Your task to perform on an android device: turn off notifications settings in the gmail app Image 0: 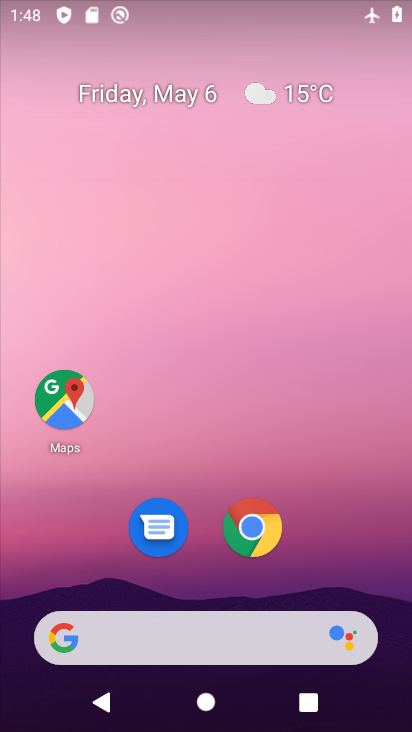
Step 0: drag from (313, 473) to (66, 55)
Your task to perform on an android device: turn off notifications settings in the gmail app Image 1: 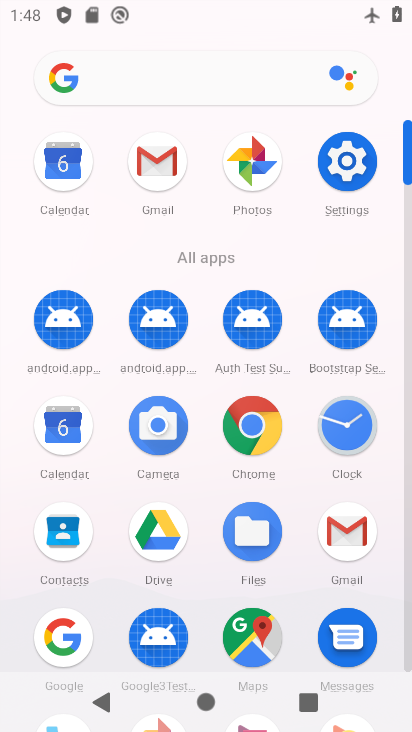
Step 1: click (349, 532)
Your task to perform on an android device: turn off notifications settings in the gmail app Image 2: 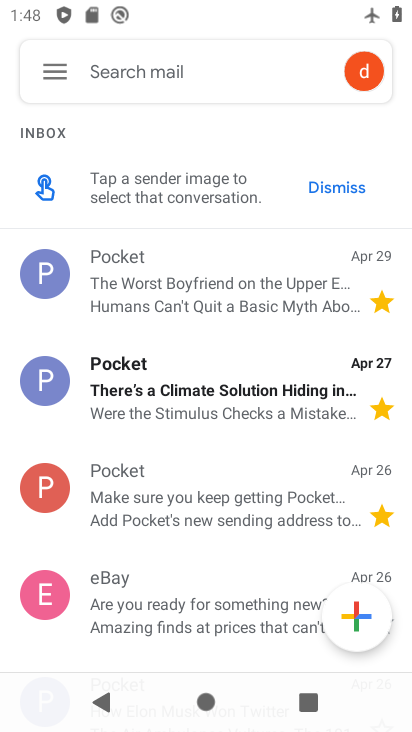
Step 2: click (52, 66)
Your task to perform on an android device: turn off notifications settings in the gmail app Image 3: 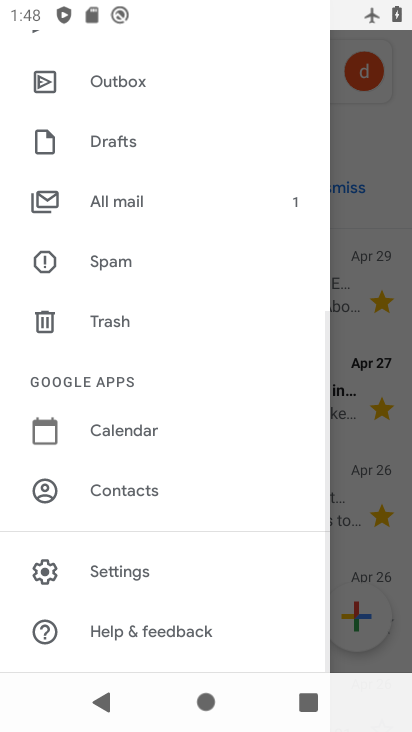
Step 3: click (113, 574)
Your task to perform on an android device: turn off notifications settings in the gmail app Image 4: 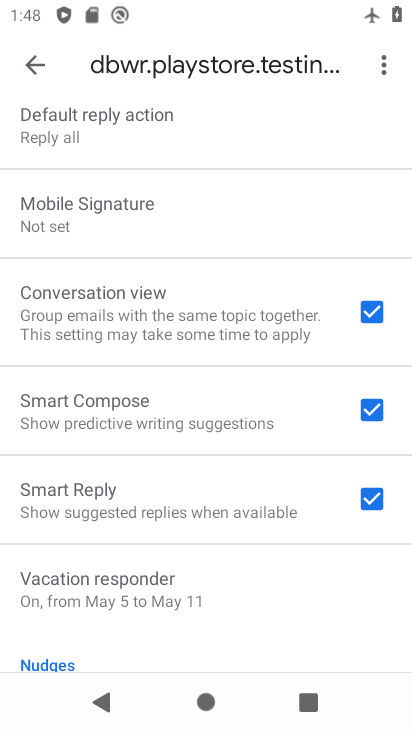
Step 4: drag from (194, 153) to (167, 675)
Your task to perform on an android device: turn off notifications settings in the gmail app Image 5: 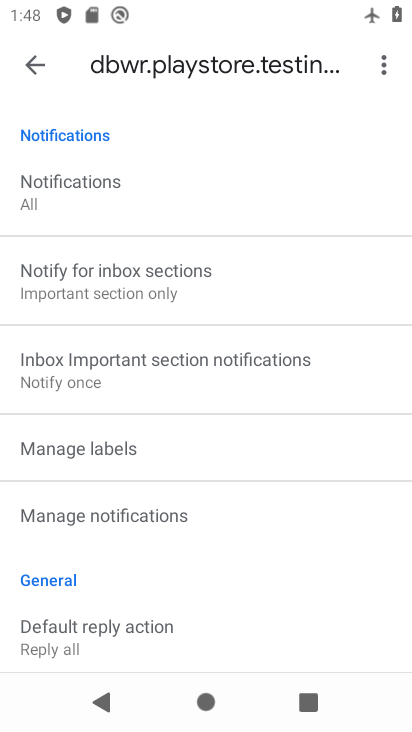
Step 5: click (62, 517)
Your task to perform on an android device: turn off notifications settings in the gmail app Image 6: 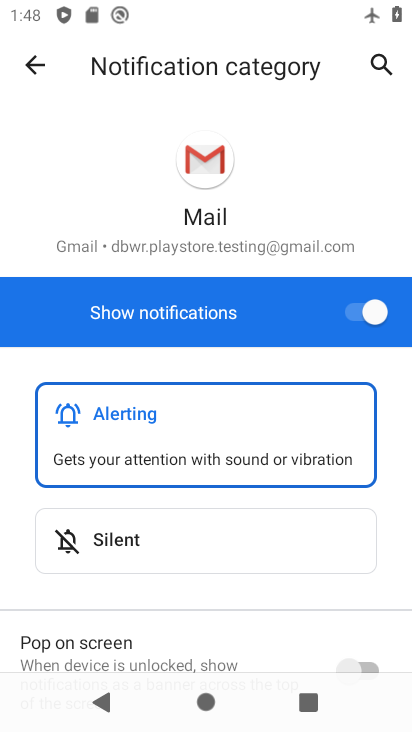
Step 6: click (370, 318)
Your task to perform on an android device: turn off notifications settings in the gmail app Image 7: 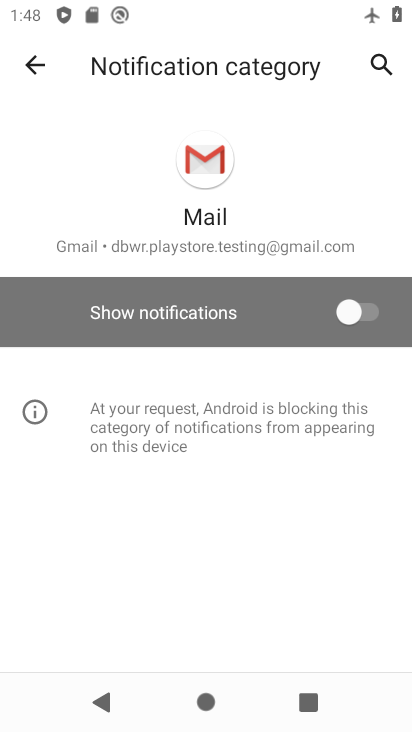
Step 7: task complete